Your task to perform on an android device: toggle priority inbox in the gmail app Image 0: 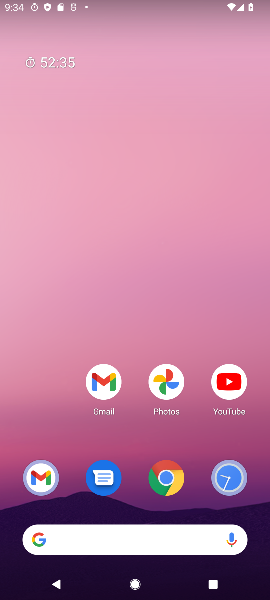
Step 0: press home button
Your task to perform on an android device: toggle priority inbox in the gmail app Image 1: 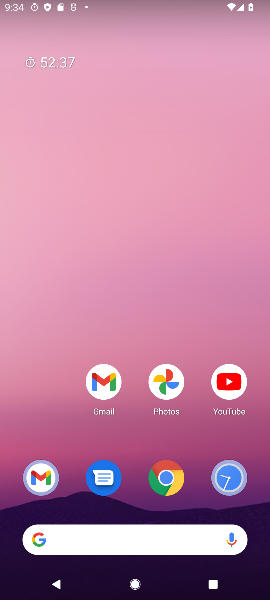
Step 1: drag from (157, 489) to (155, 85)
Your task to perform on an android device: toggle priority inbox in the gmail app Image 2: 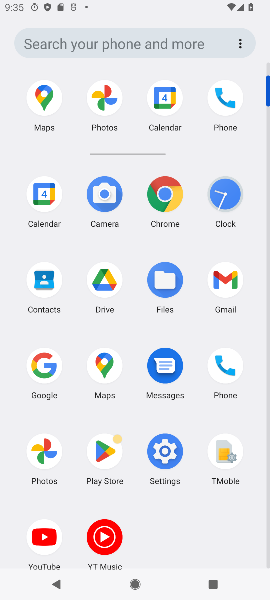
Step 2: click (230, 286)
Your task to perform on an android device: toggle priority inbox in the gmail app Image 3: 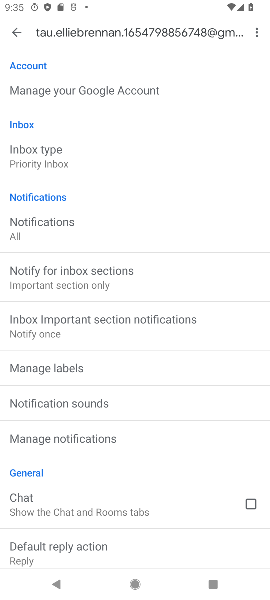
Step 3: click (54, 170)
Your task to perform on an android device: toggle priority inbox in the gmail app Image 4: 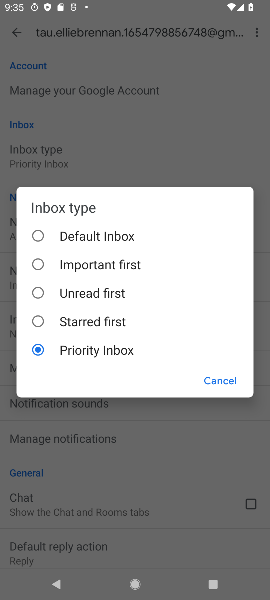
Step 4: click (73, 234)
Your task to perform on an android device: toggle priority inbox in the gmail app Image 5: 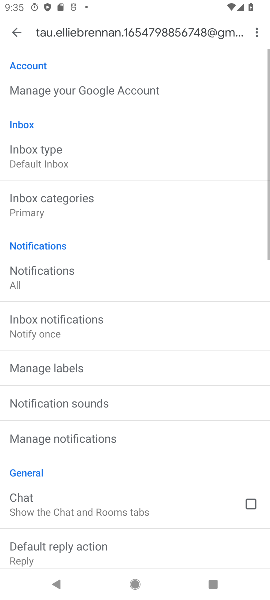
Step 5: task complete